Your task to perform on an android device: turn off wifi Image 0: 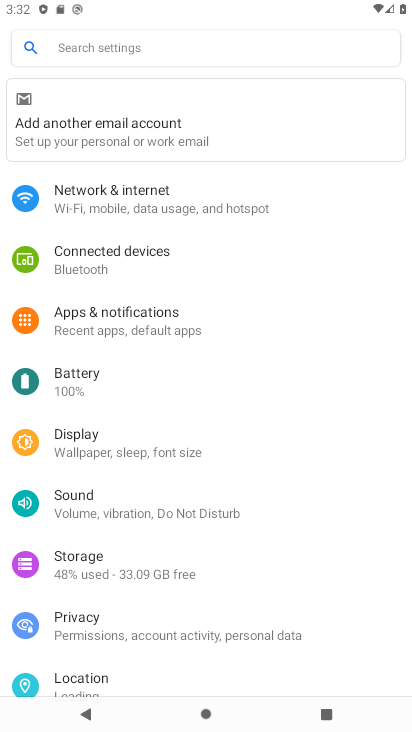
Step 0: press home button
Your task to perform on an android device: turn off wifi Image 1: 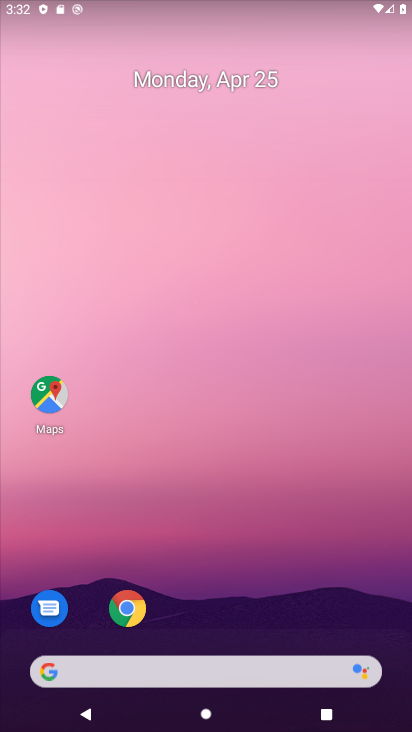
Step 1: drag from (286, 688) to (347, 115)
Your task to perform on an android device: turn off wifi Image 2: 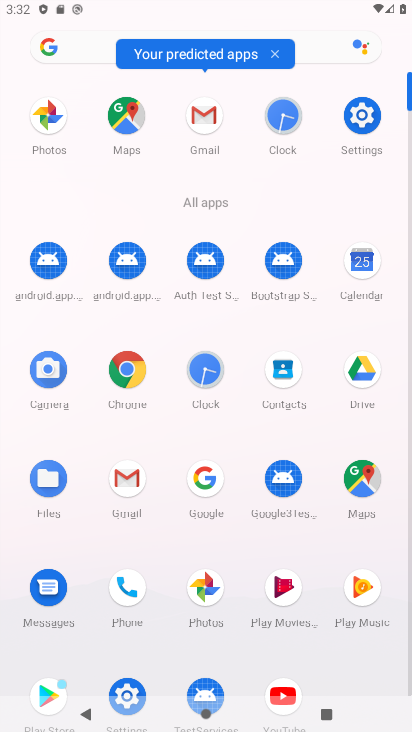
Step 2: click (359, 120)
Your task to perform on an android device: turn off wifi Image 3: 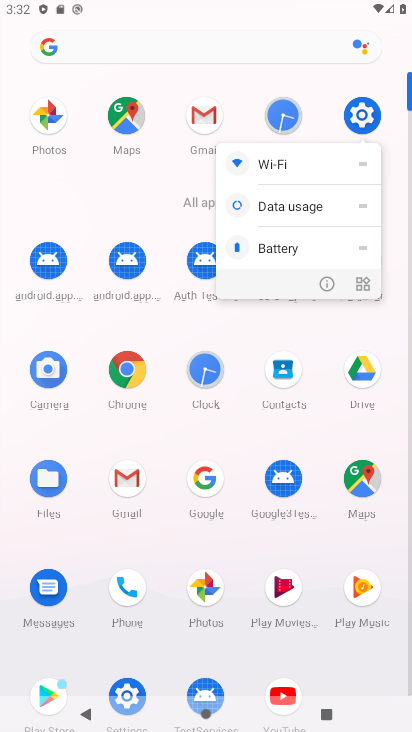
Step 3: click (364, 119)
Your task to perform on an android device: turn off wifi Image 4: 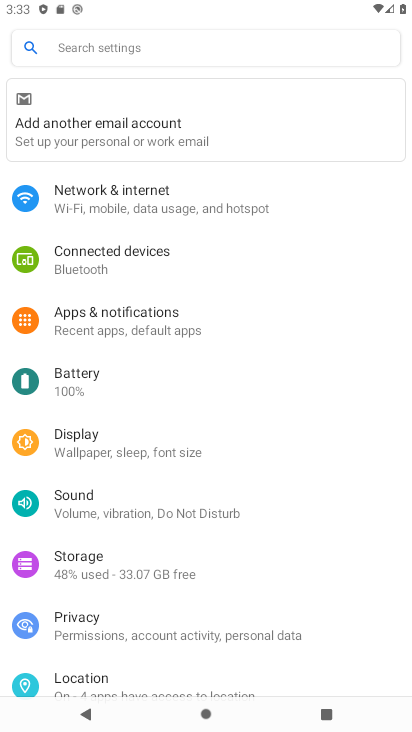
Step 4: click (159, 204)
Your task to perform on an android device: turn off wifi Image 5: 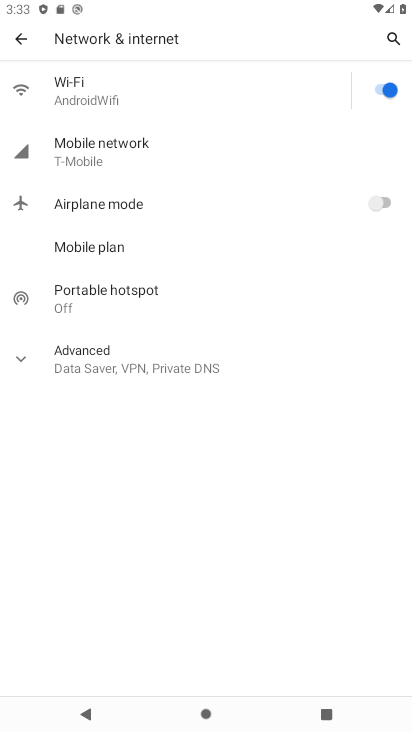
Step 5: click (136, 88)
Your task to perform on an android device: turn off wifi Image 6: 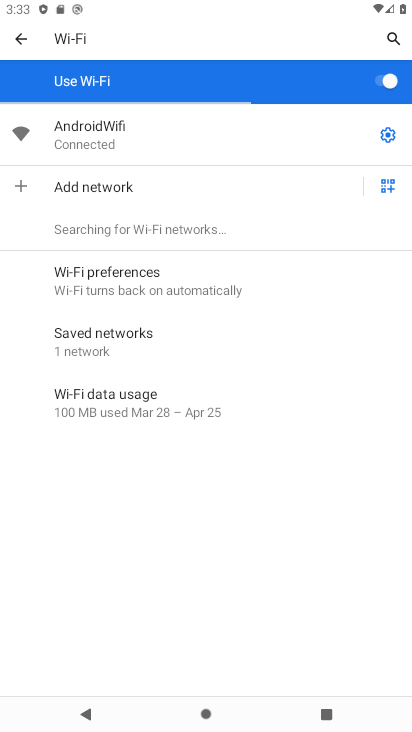
Step 6: click (371, 85)
Your task to perform on an android device: turn off wifi Image 7: 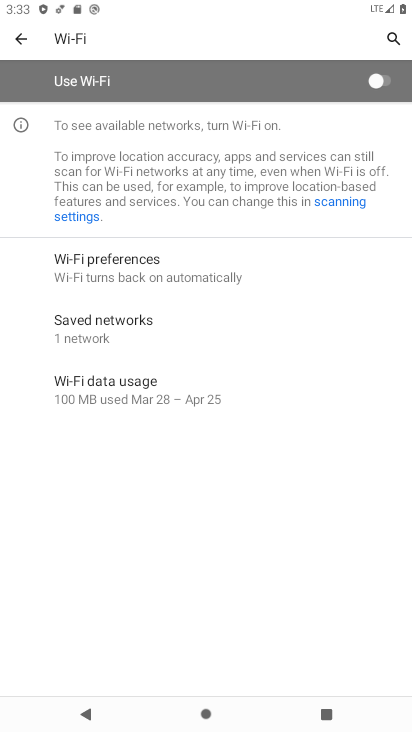
Step 7: task complete